Your task to perform on an android device: Add "macbook pro 15 inch" to the cart on costco.com Image 0: 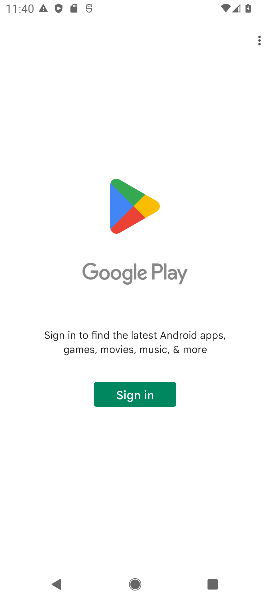
Step 0: press home button
Your task to perform on an android device: Add "macbook pro 15 inch" to the cart on costco.com Image 1: 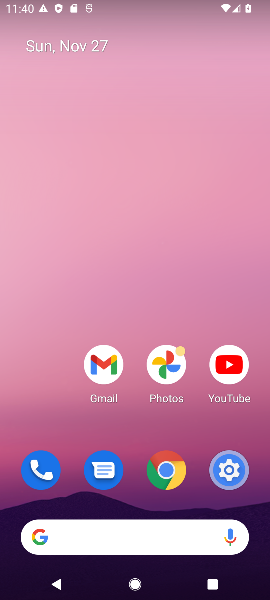
Step 1: click (131, 532)
Your task to perform on an android device: Add "macbook pro 15 inch" to the cart on costco.com Image 2: 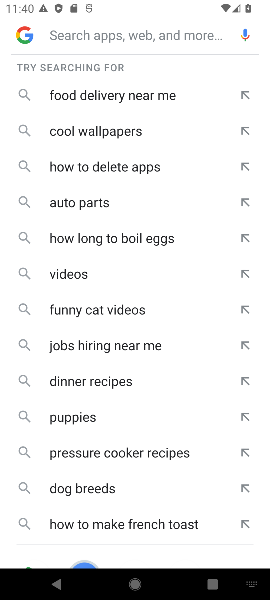
Step 2: type "macbook pro 15\"
Your task to perform on an android device: Add "macbook pro 15 inch" to the cart on costco.com Image 3: 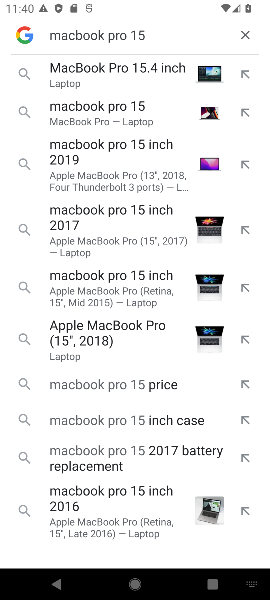
Step 3: click (125, 87)
Your task to perform on an android device: Add "macbook pro 15 inch" to the cart on costco.com Image 4: 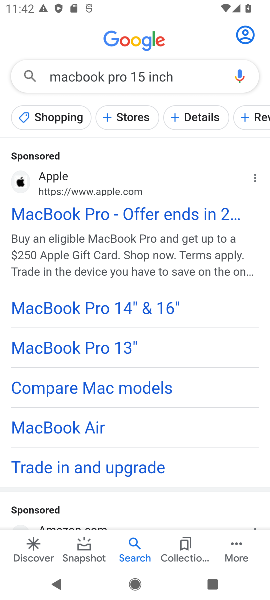
Step 4: task complete